Your task to perform on an android device: What's the price of the Sony TV? Image 0: 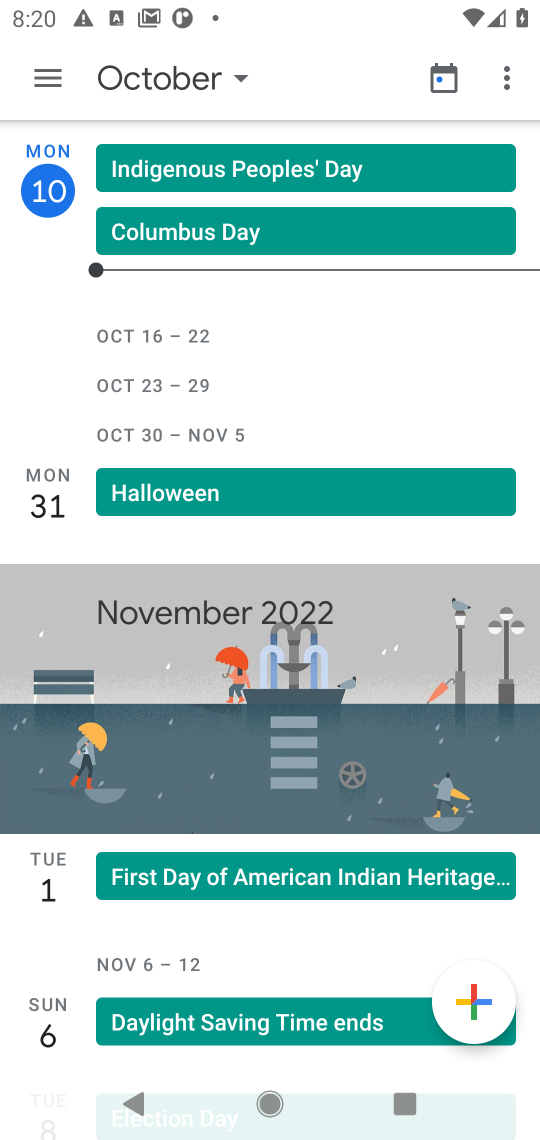
Step 0: press back button
Your task to perform on an android device: What's the price of the Sony TV? Image 1: 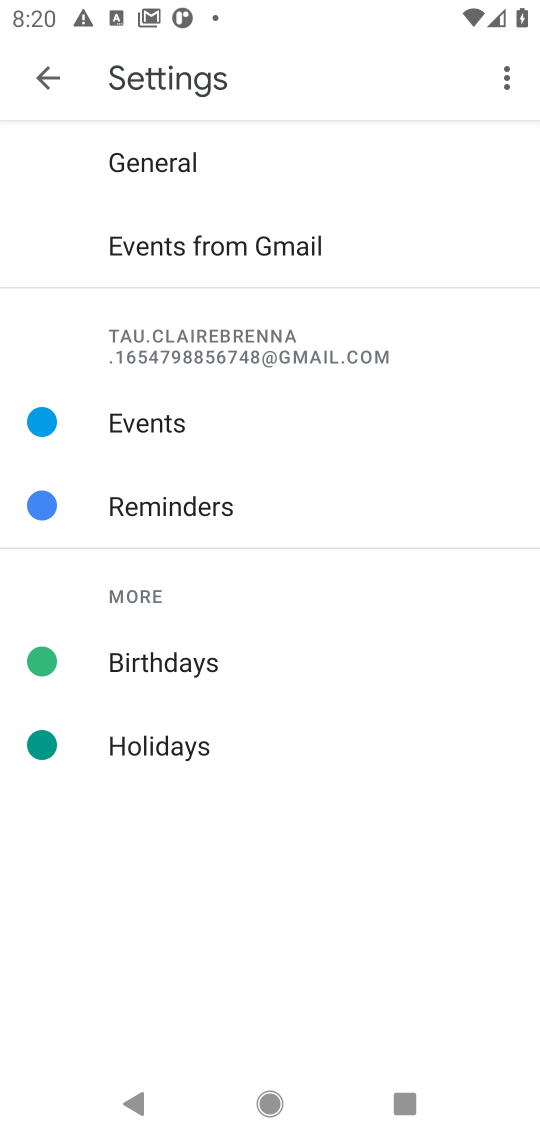
Step 1: press back button
Your task to perform on an android device: What's the price of the Sony TV? Image 2: 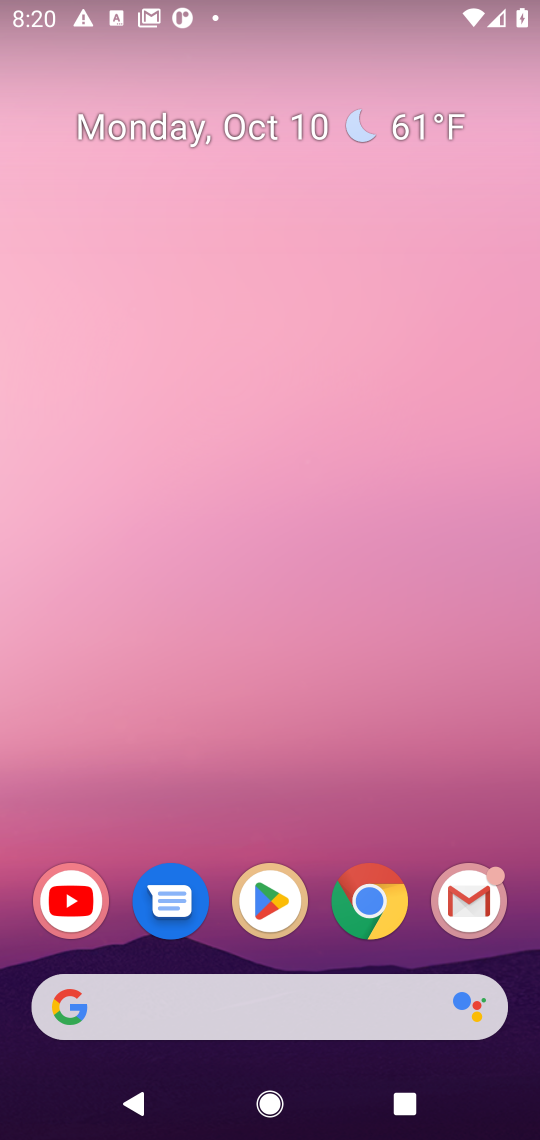
Step 2: click (383, 907)
Your task to perform on an android device: What's the price of the Sony TV? Image 3: 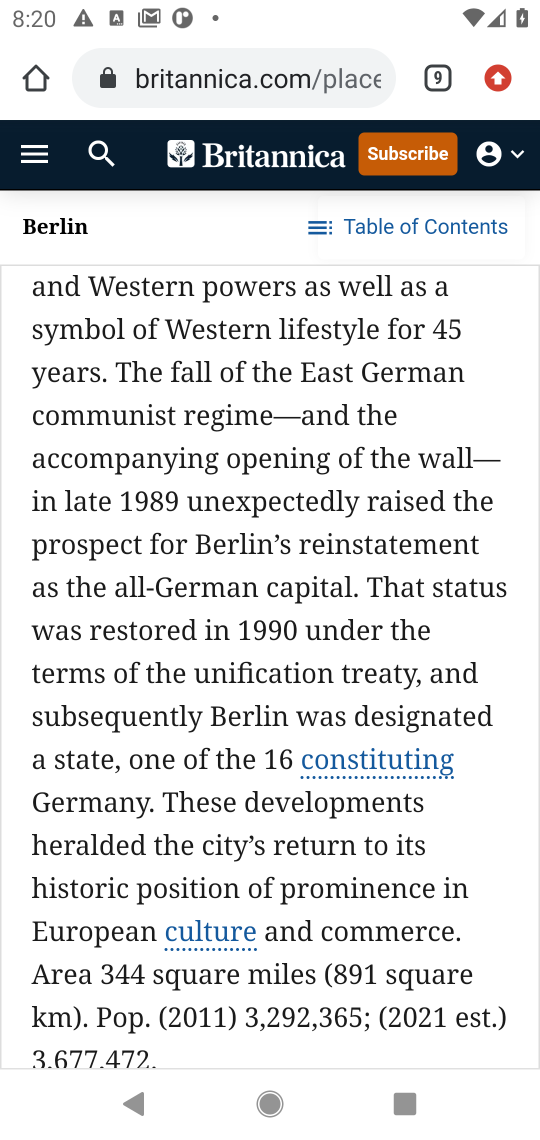
Step 3: click (344, 77)
Your task to perform on an android device: What's the price of the Sony TV? Image 4: 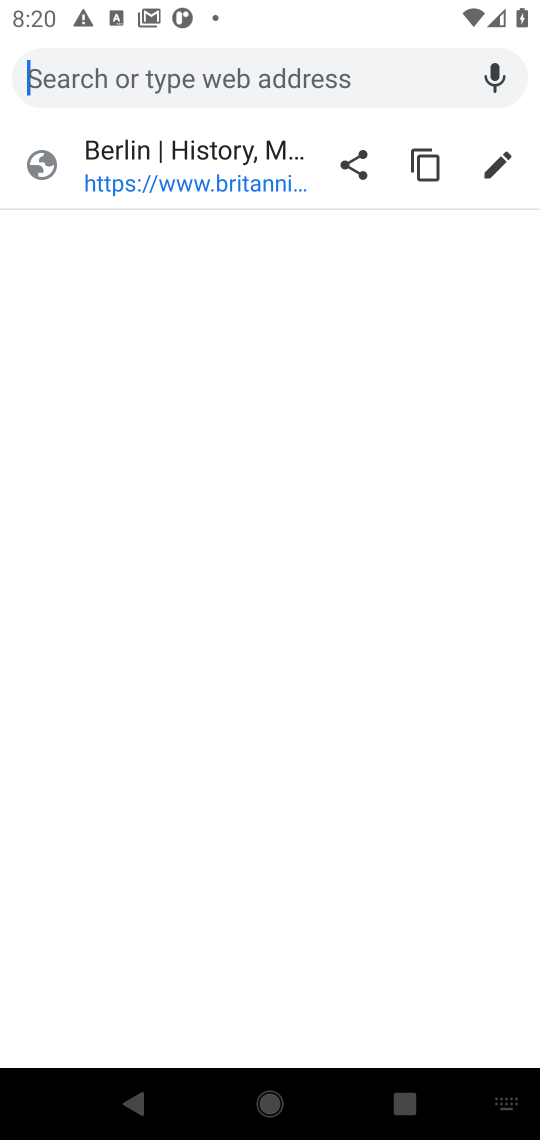
Step 4: type "price of the Sony TV?"
Your task to perform on an android device: What's the price of the Sony TV? Image 5: 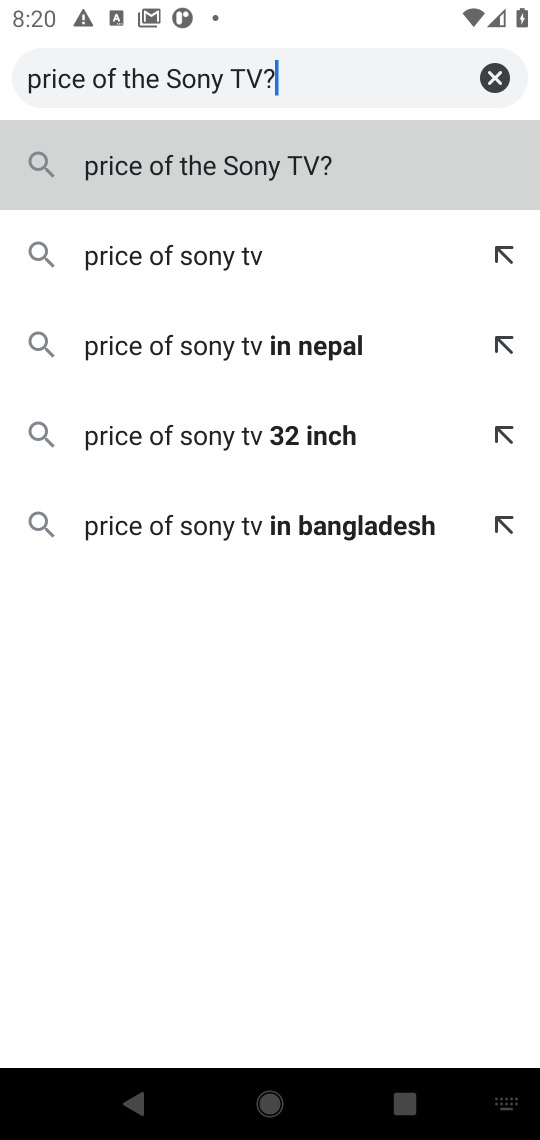
Step 5: press enter
Your task to perform on an android device: What's the price of the Sony TV? Image 6: 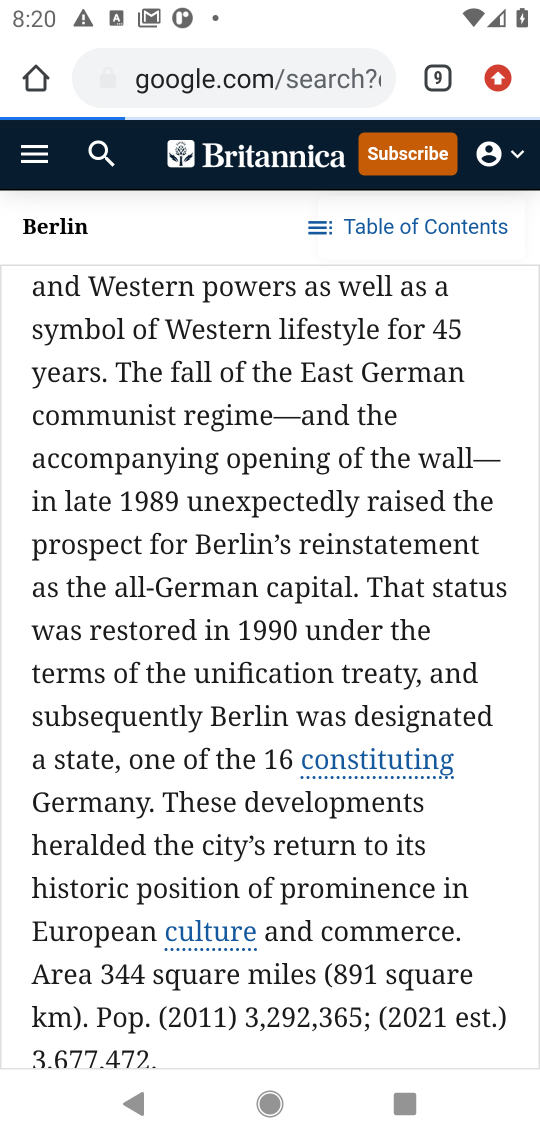
Step 6: press enter
Your task to perform on an android device: What's the price of the Sony TV? Image 7: 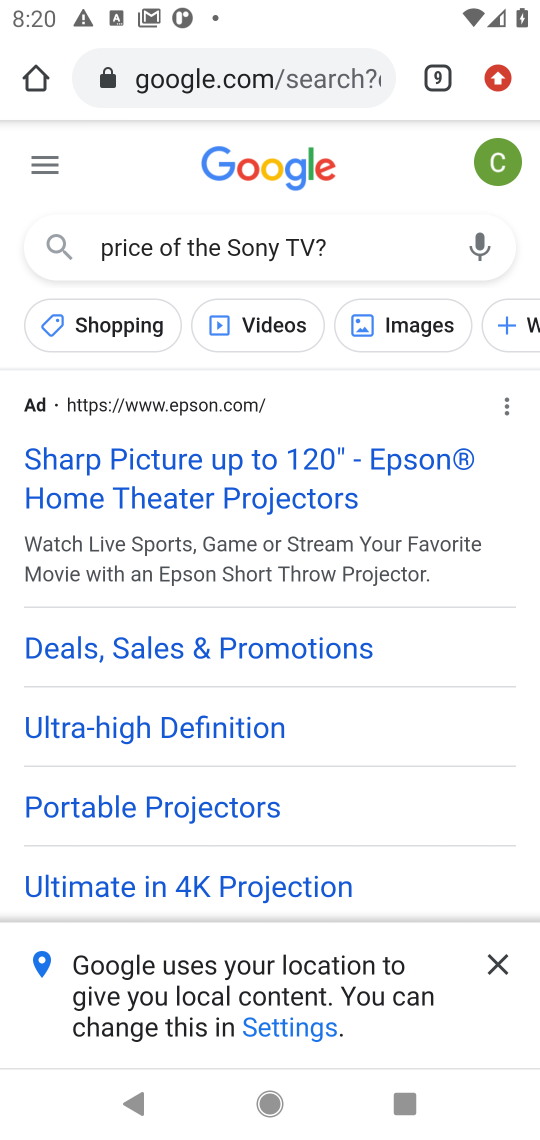
Step 7: click (132, 267)
Your task to perform on an android device: What's the price of the Sony TV? Image 8: 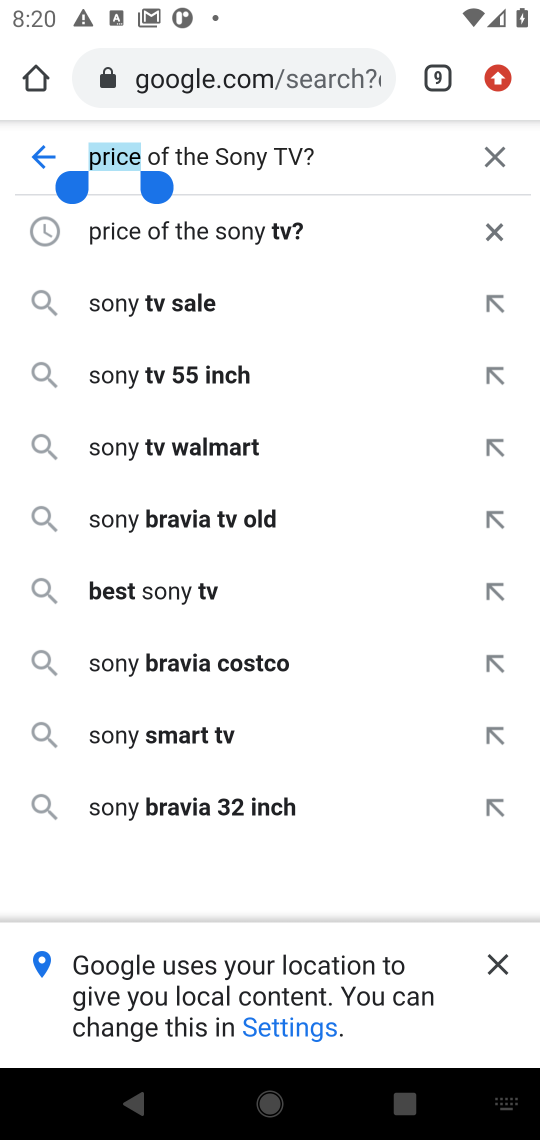
Step 8: click (200, 236)
Your task to perform on an android device: What's the price of the Sony TV? Image 9: 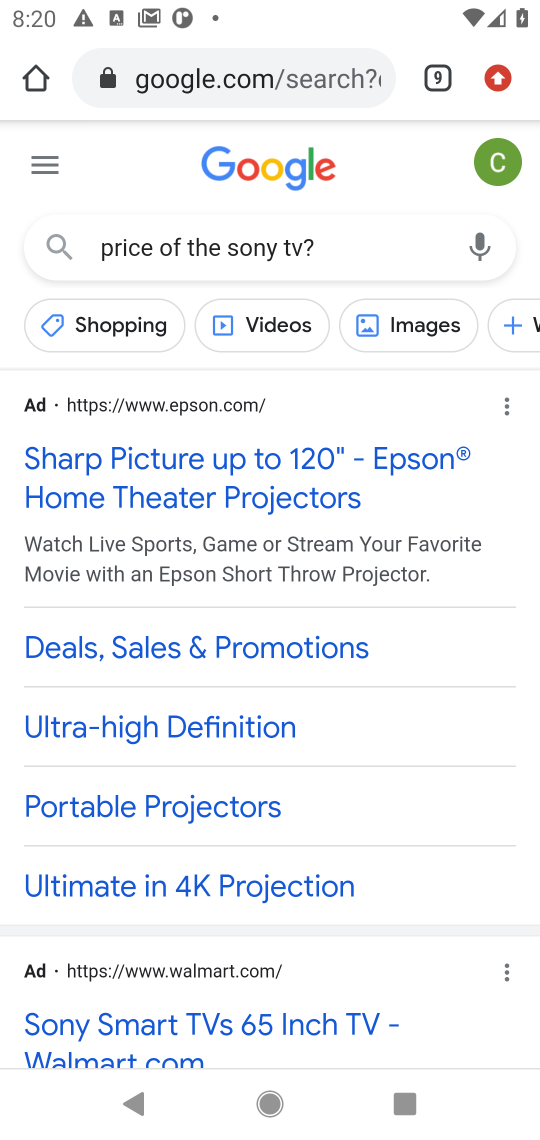
Step 9: drag from (425, 884) to (431, 384)
Your task to perform on an android device: What's the price of the Sony TV? Image 10: 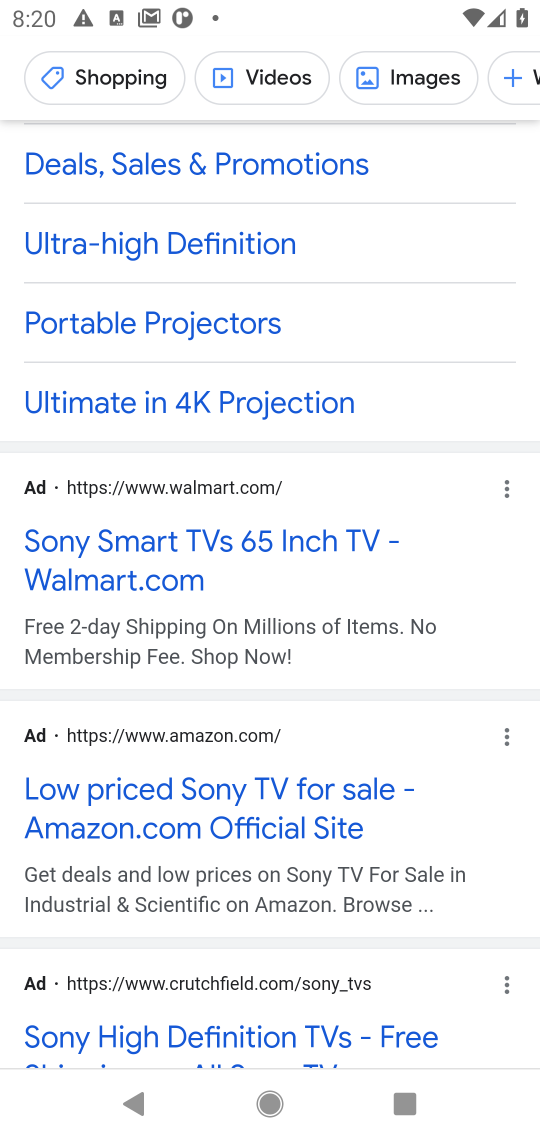
Step 10: drag from (488, 1027) to (463, 411)
Your task to perform on an android device: What's the price of the Sony TV? Image 11: 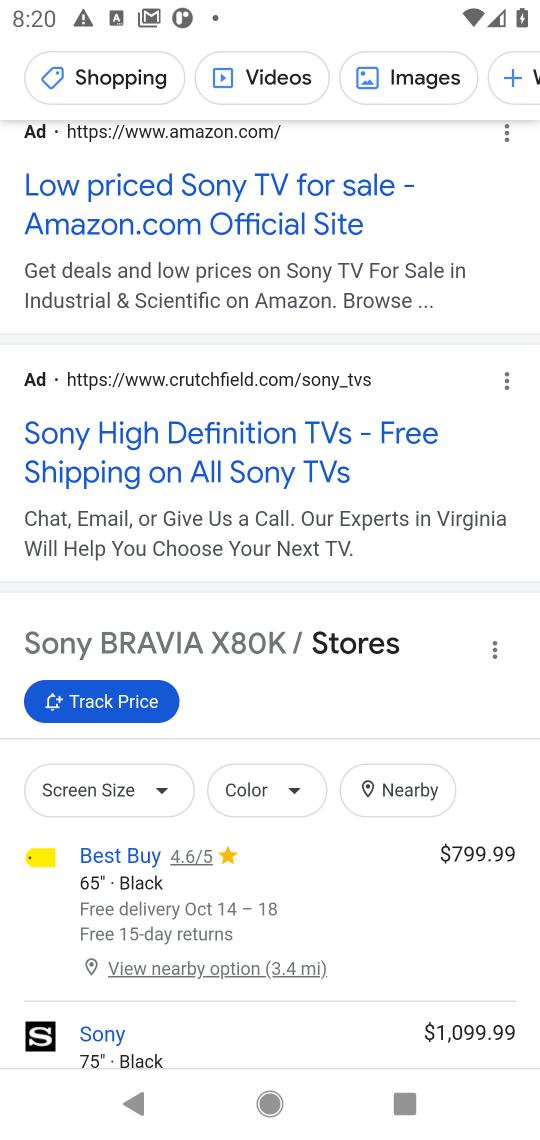
Step 11: drag from (426, 891) to (391, 439)
Your task to perform on an android device: What's the price of the Sony TV? Image 12: 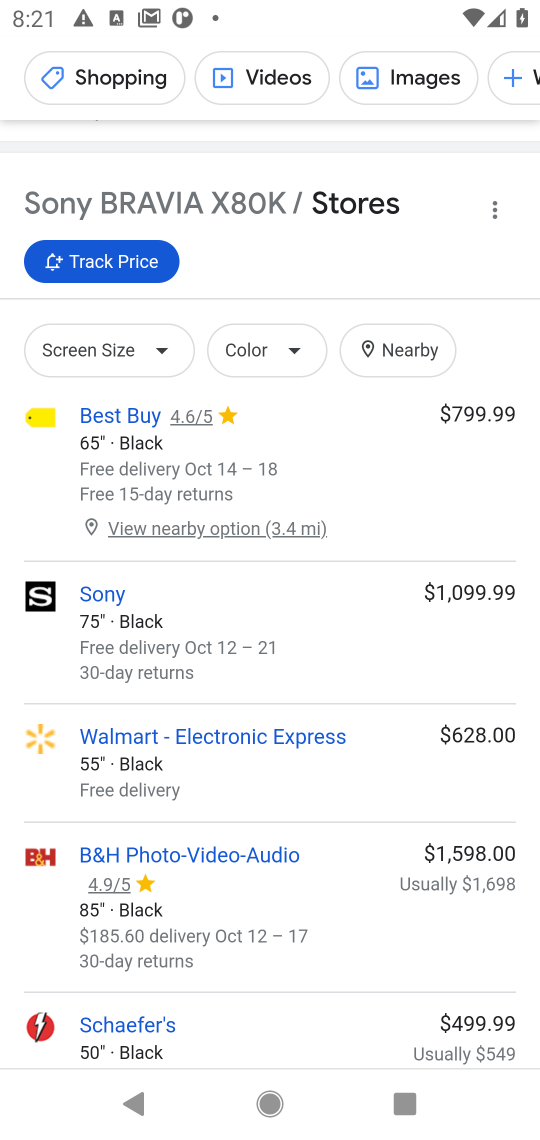
Step 12: drag from (358, 741) to (296, 478)
Your task to perform on an android device: What's the price of the Sony TV? Image 13: 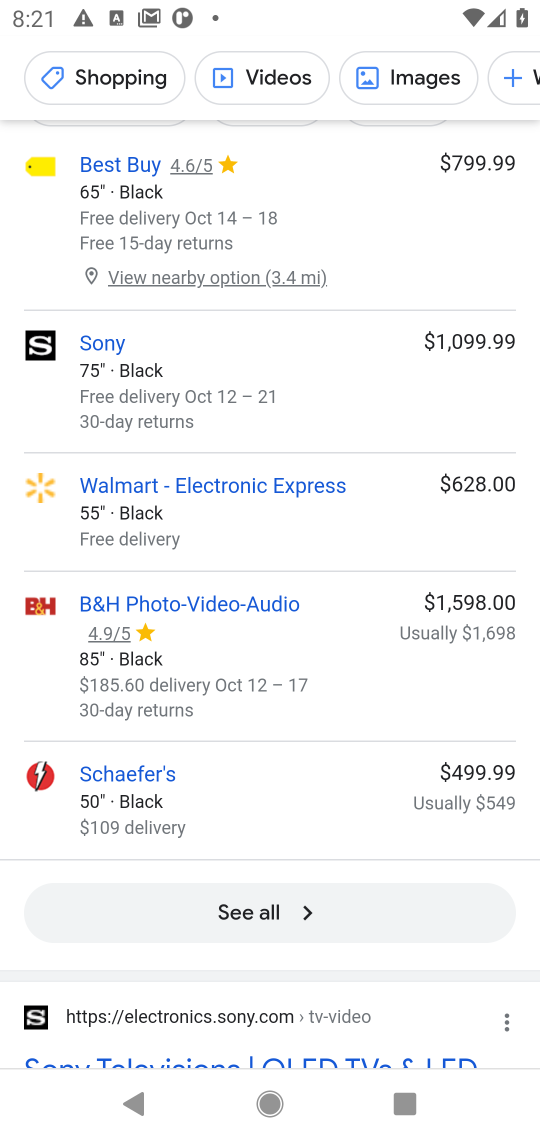
Step 13: click (253, 904)
Your task to perform on an android device: What's the price of the Sony TV? Image 14: 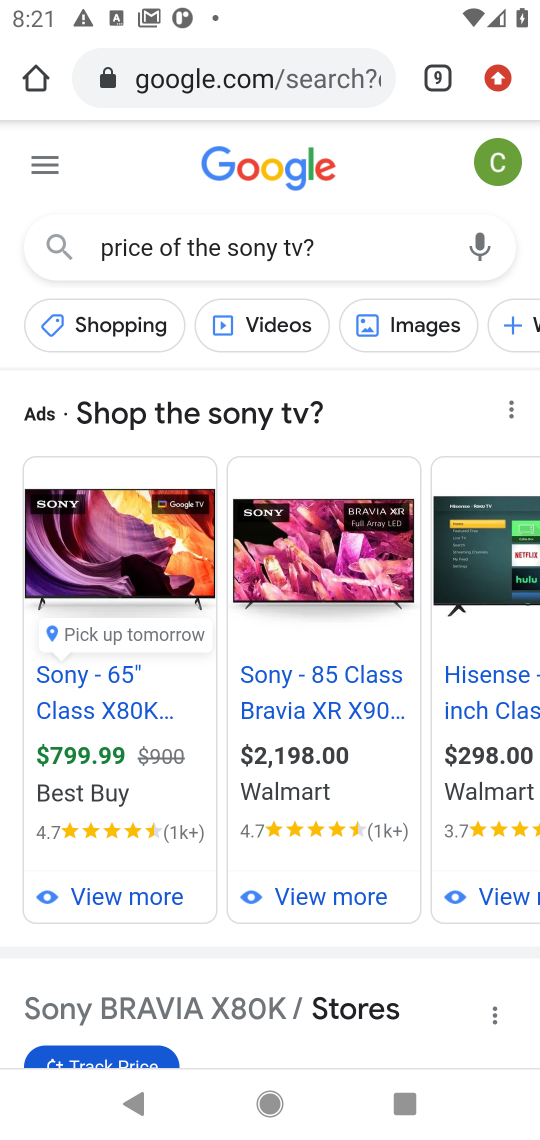
Step 14: drag from (243, 966) to (220, 413)
Your task to perform on an android device: What's the price of the Sony TV? Image 15: 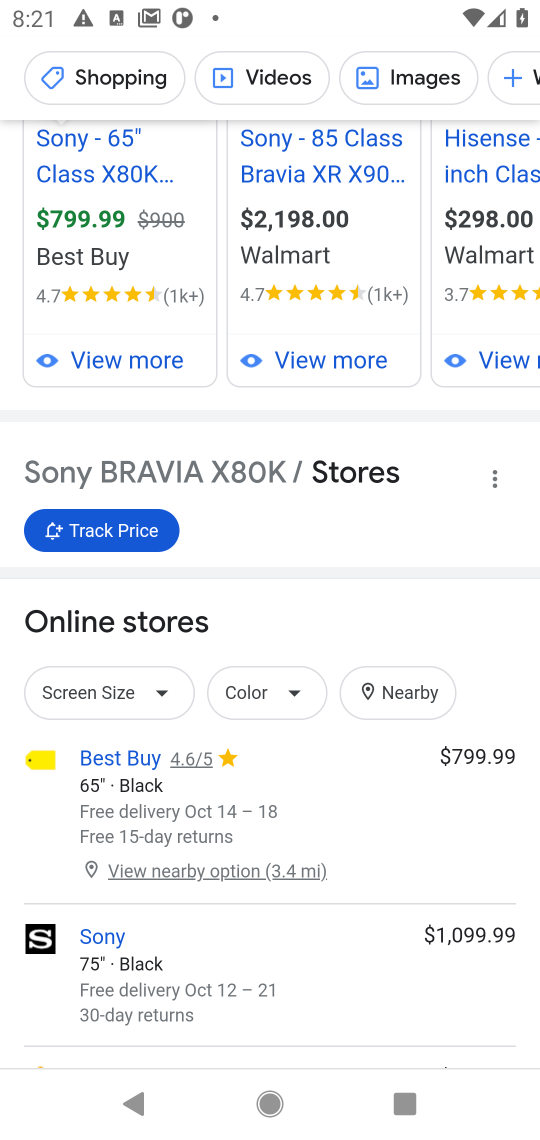
Step 15: drag from (282, 905) to (318, 648)
Your task to perform on an android device: What's the price of the Sony TV? Image 16: 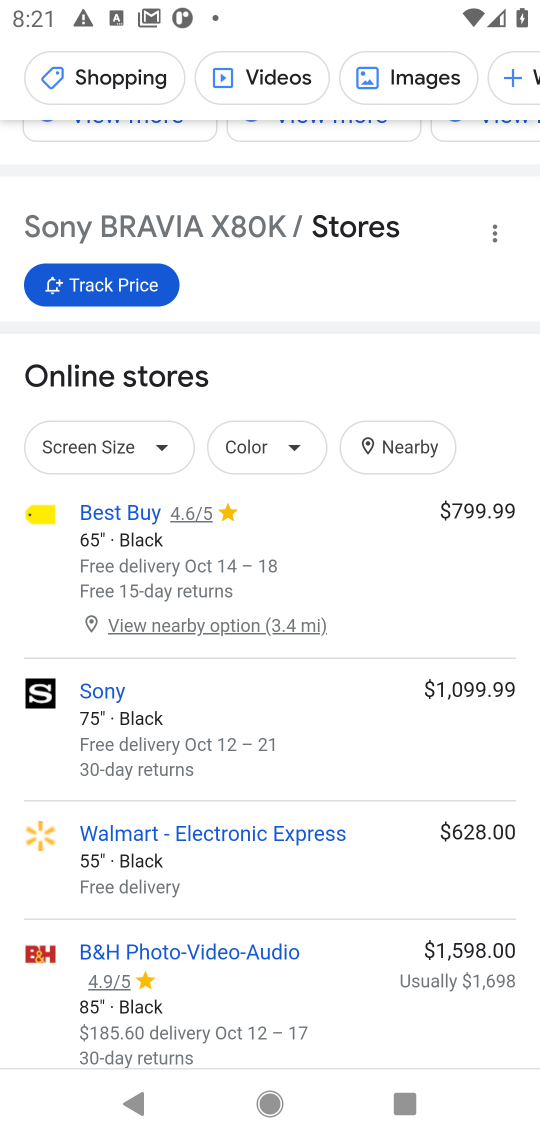
Step 16: drag from (326, 752) to (300, 394)
Your task to perform on an android device: What's the price of the Sony TV? Image 17: 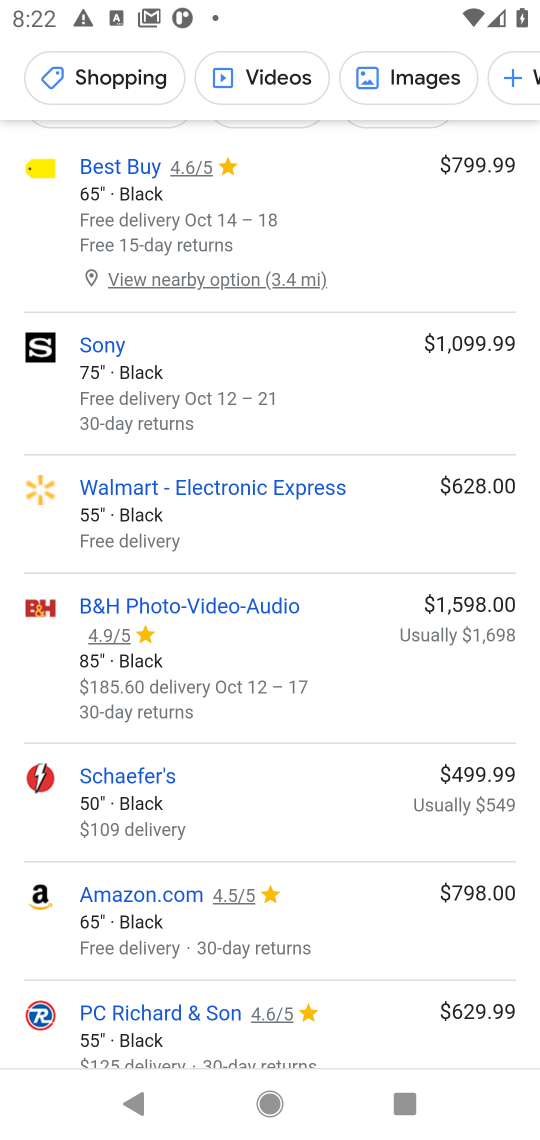
Step 17: drag from (263, 430) to (265, 362)
Your task to perform on an android device: What's the price of the Sony TV? Image 18: 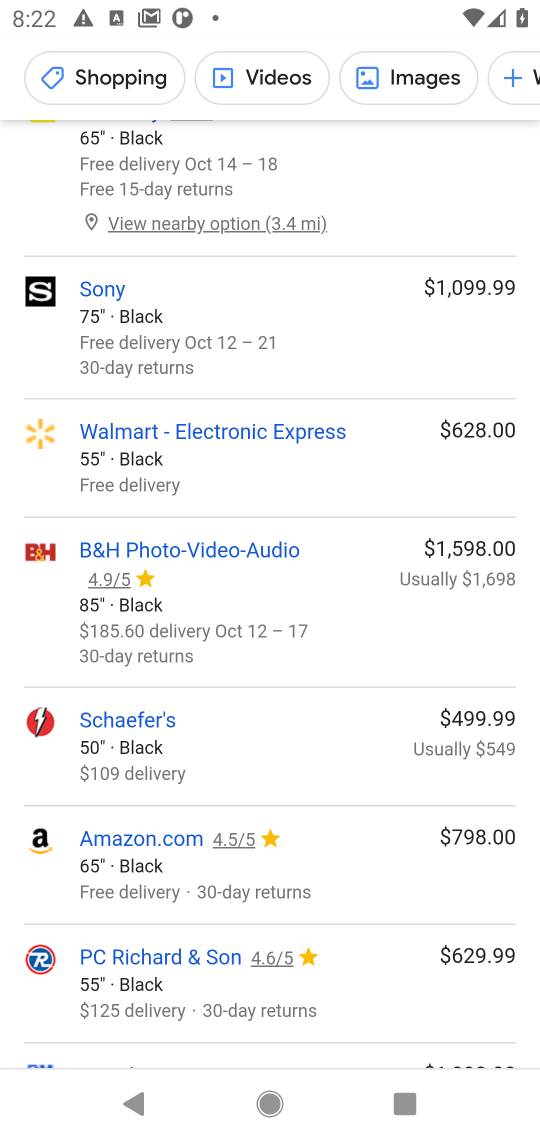
Step 18: drag from (301, 643) to (288, 319)
Your task to perform on an android device: What's the price of the Sony TV? Image 19: 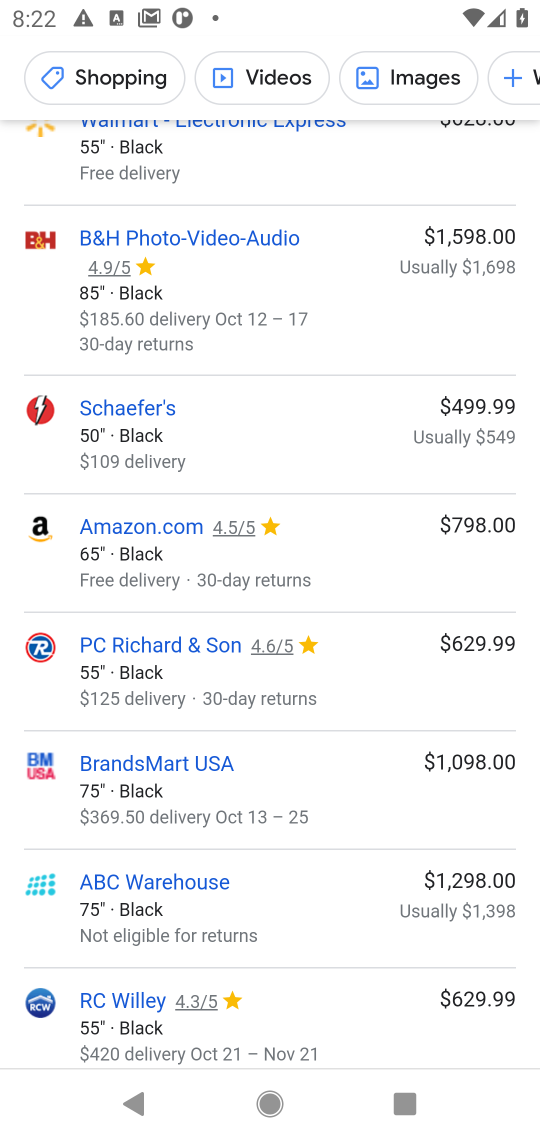
Step 19: drag from (336, 732) to (342, 477)
Your task to perform on an android device: What's the price of the Sony TV? Image 20: 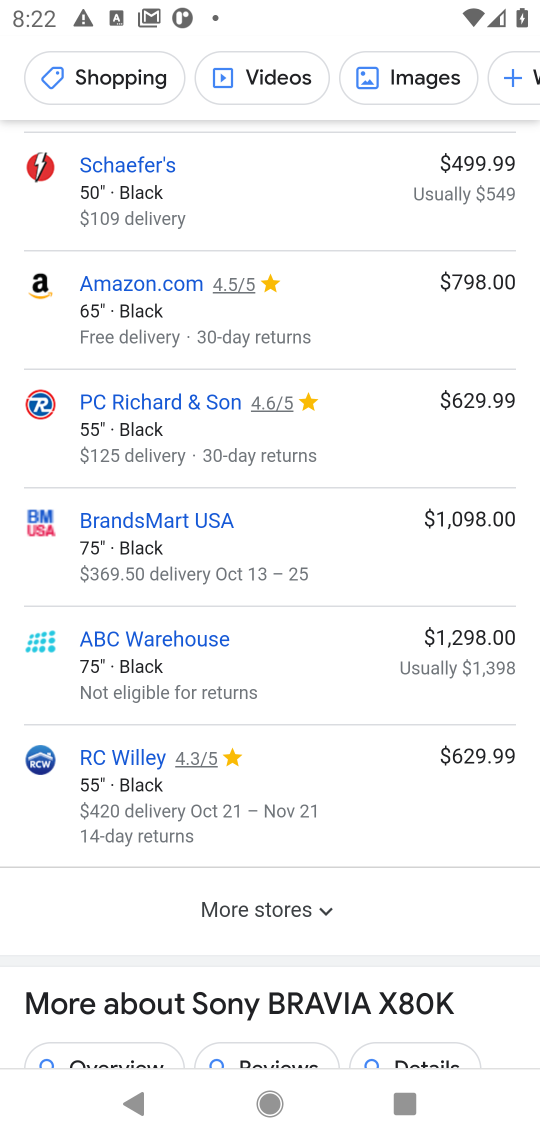
Step 20: drag from (336, 591) to (343, 270)
Your task to perform on an android device: What's the price of the Sony TV? Image 21: 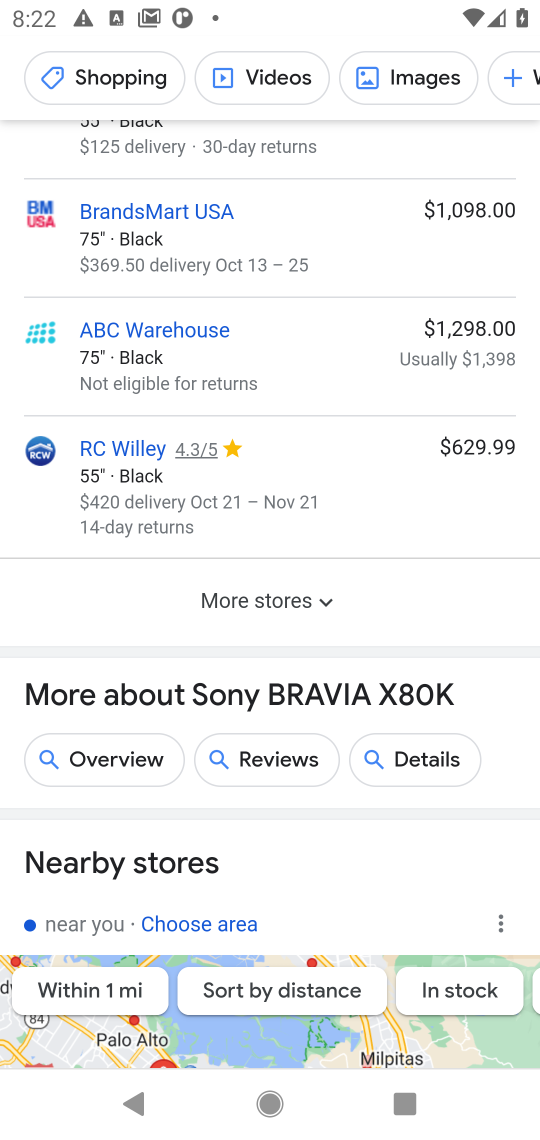
Step 21: drag from (340, 478) to (413, 790)
Your task to perform on an android device: What's the price of the Sony TV? Image 22: 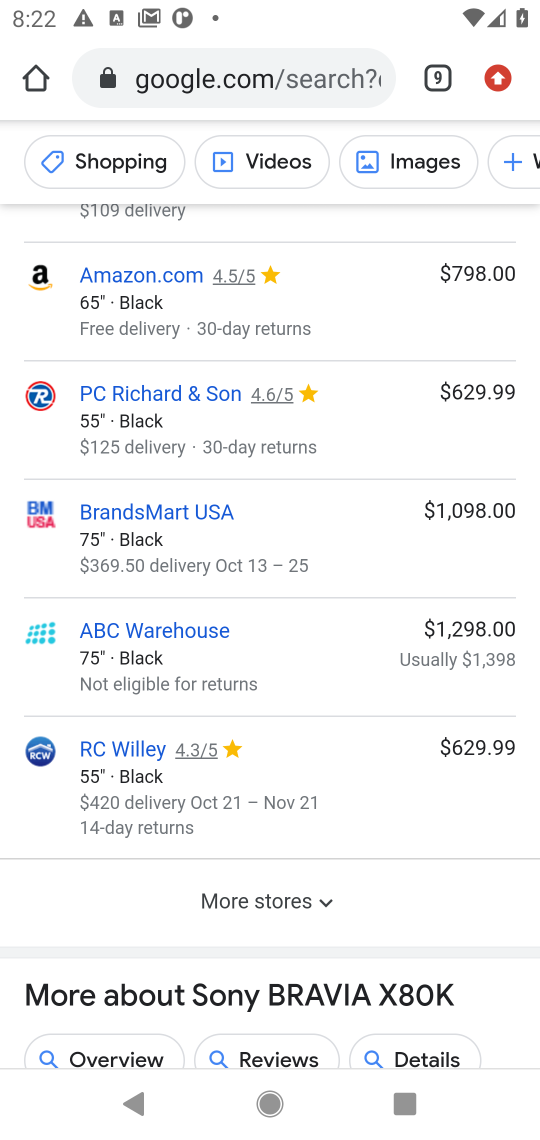
Step 22: click (318, 906)
Your task to perform on an android device: What's the price of the Sony TV? Image 23: 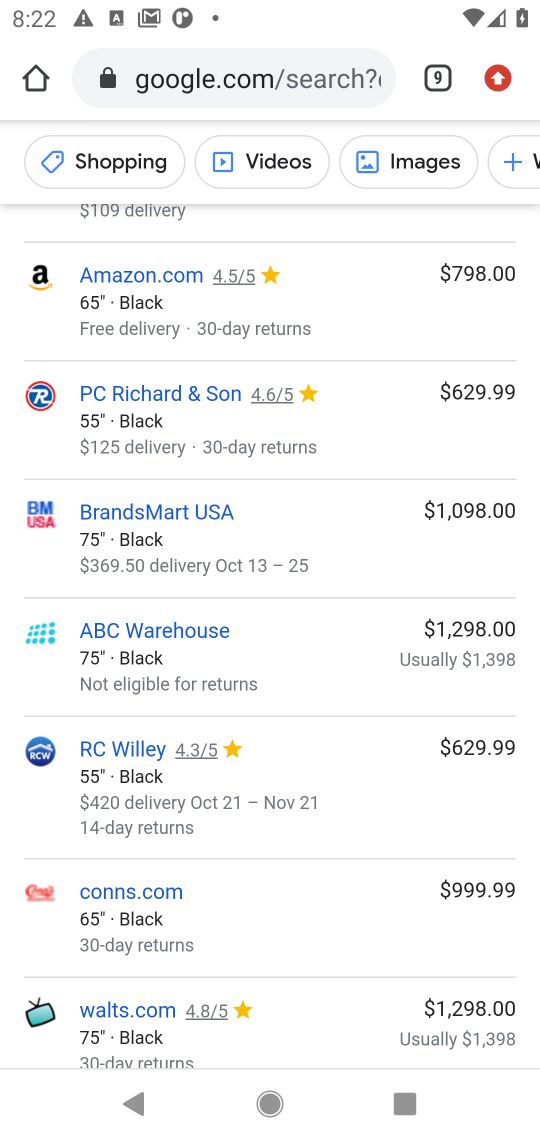
Step 23: click (328, 865)
Your task to perform on an android device: What's the price of the Sony TV? Image 24: 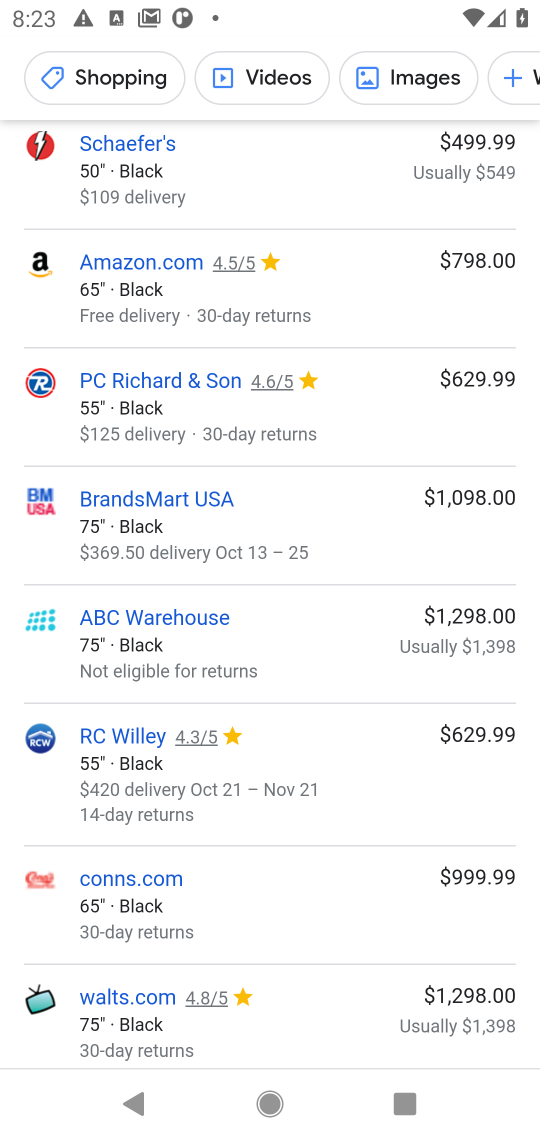
Step 24: task complete